Your task to perform on an android device: Search for flights from San Diego to Seattle Image 0: 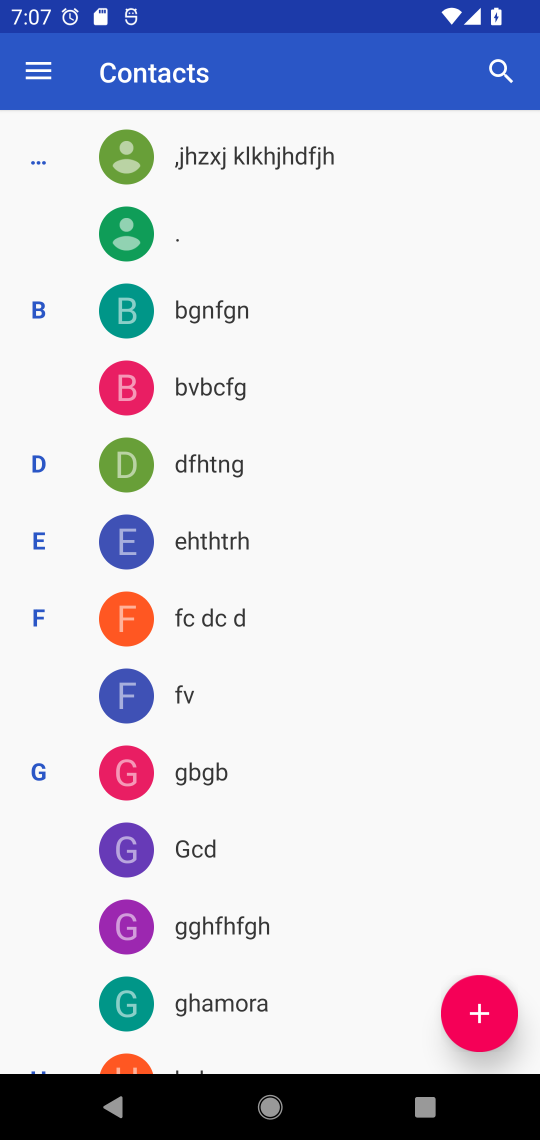
Step 0: press home button
Your task to perform on an android device: Search for flights from San Diego to Seattle Image 1: 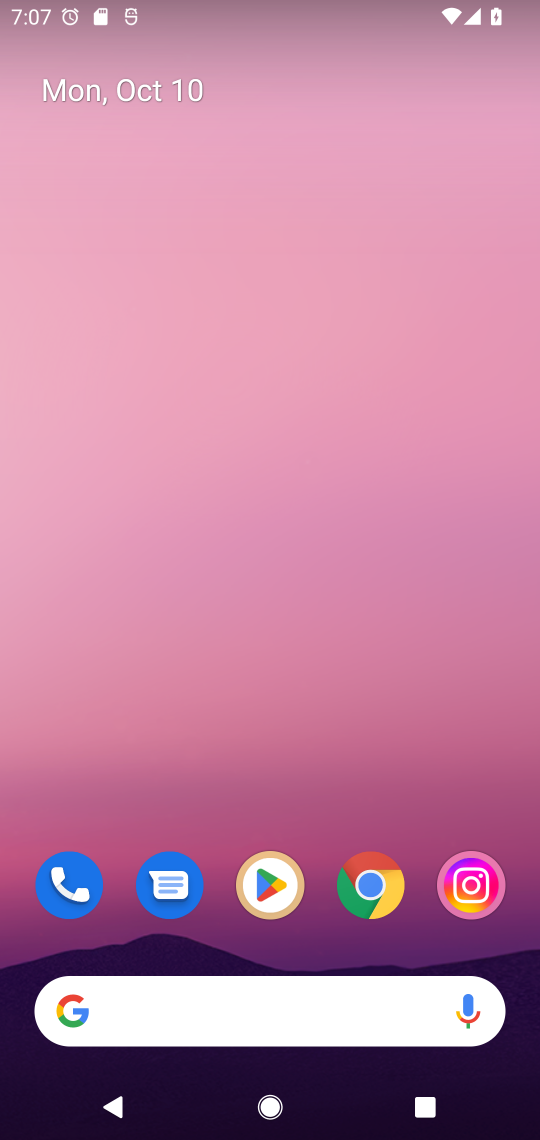
Step 1: click (365, 882)
Your task to perform on an android device: Search for flights from San Diego to Seattle Image 2: 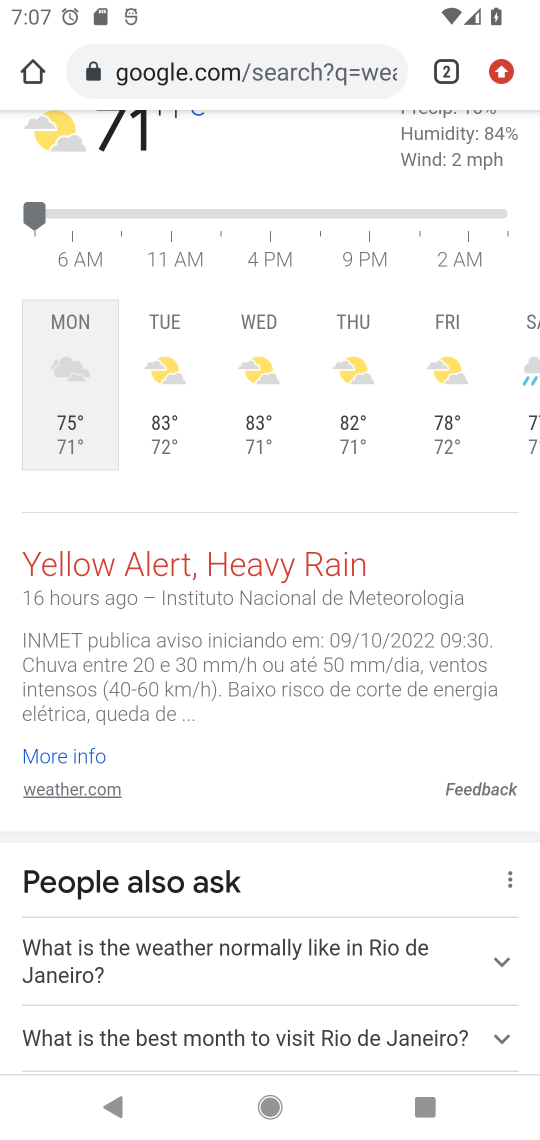
Step 2: click (212, 78)
Your task to perform on an android device: Search for flights from San Diego to Seattle Image 3: 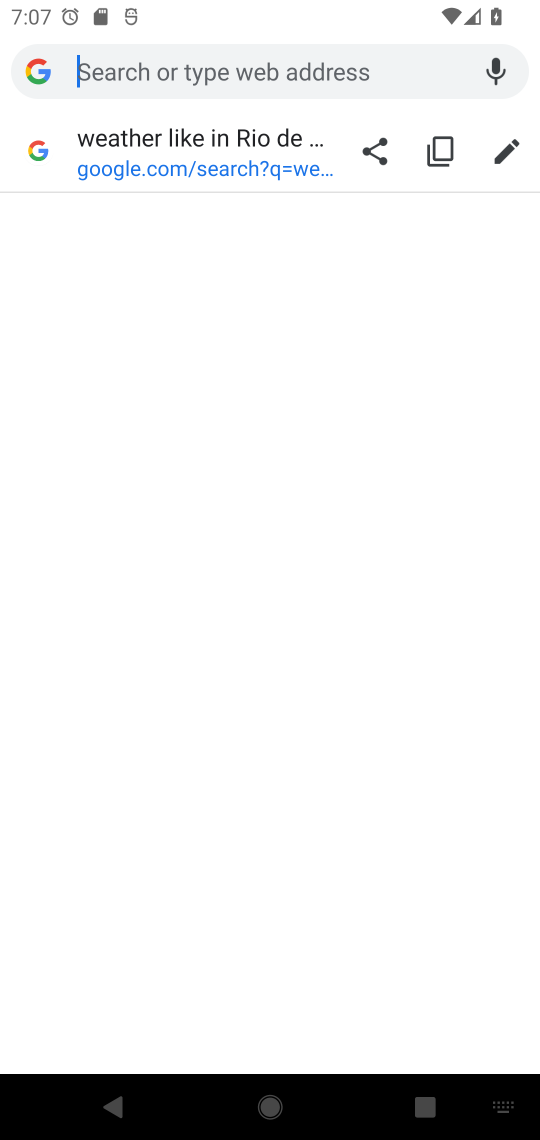
Step 3: type "flights from San Diego to Seattle"
Your task to perform on an android device: Search for flights from San Diego to Seattle Image 4: 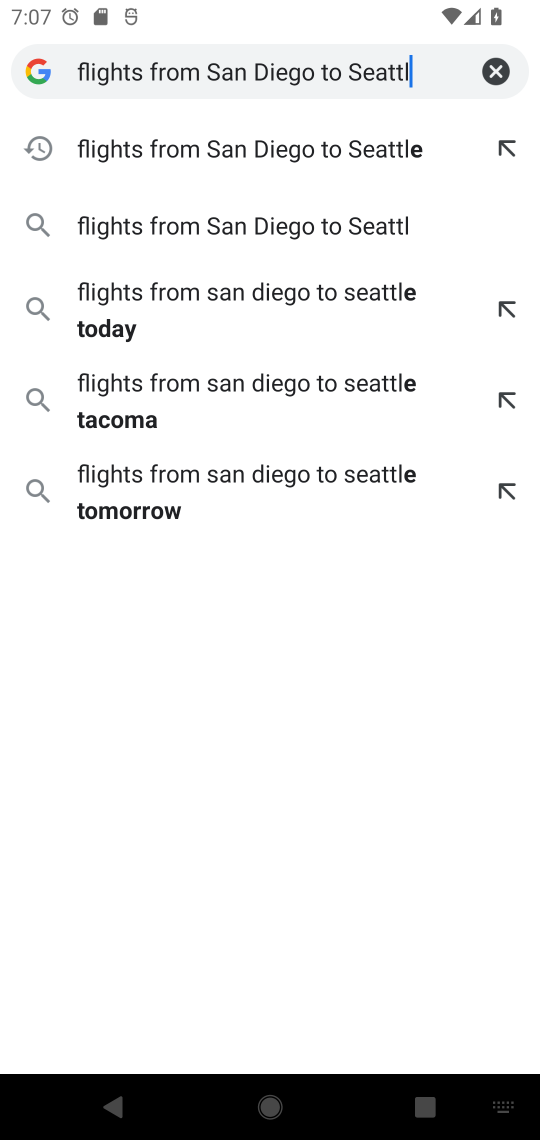
Step 4: type ""
Your task to perform on an android device: Search for flights from San Diego to Seattle Image 5: 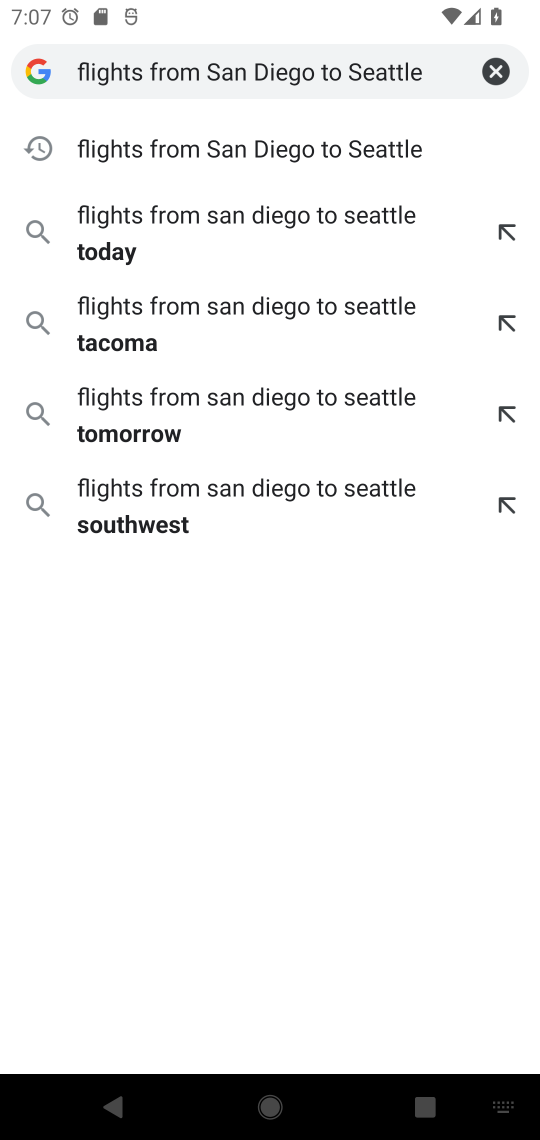
Step 5: click (304, 153)
Your task to perform on an android device: Search for flights from San Diego to Seattle Image 6: 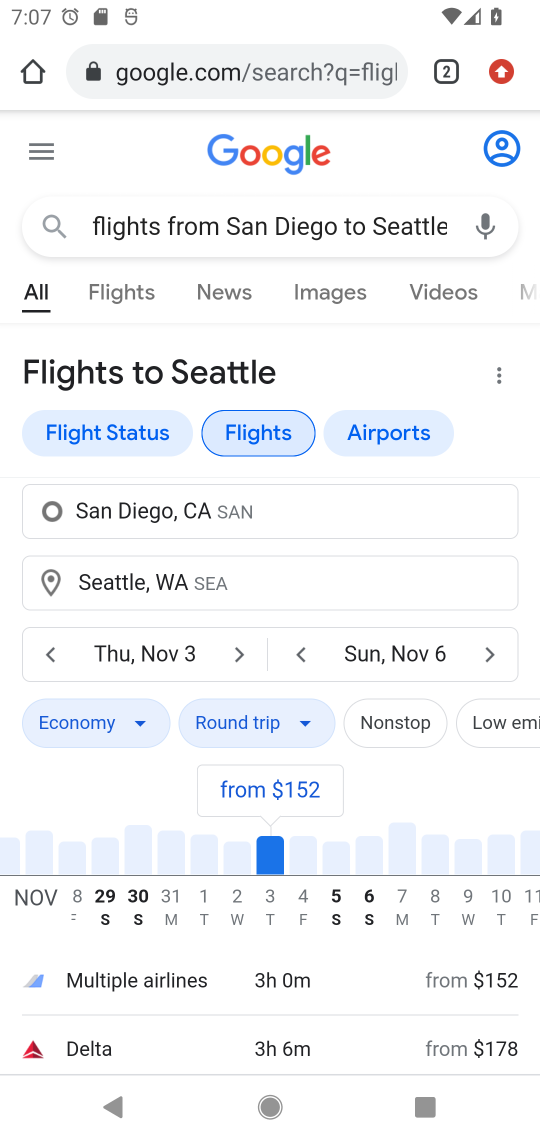
Step 6: click (296, 610)
Your task to perform on an android device: Search for flights from San Diego to Seattle Image 7: 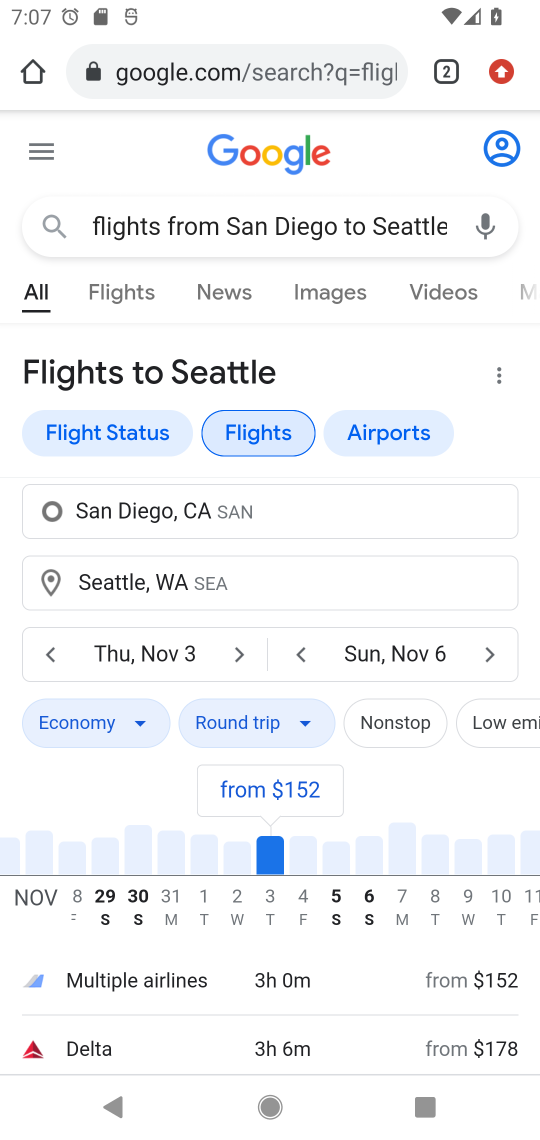
Step 7: drag from (281, 527) to (281, 265)
Your task to perform on an android device: Search for flights from San Diego to Seattle Image 8: 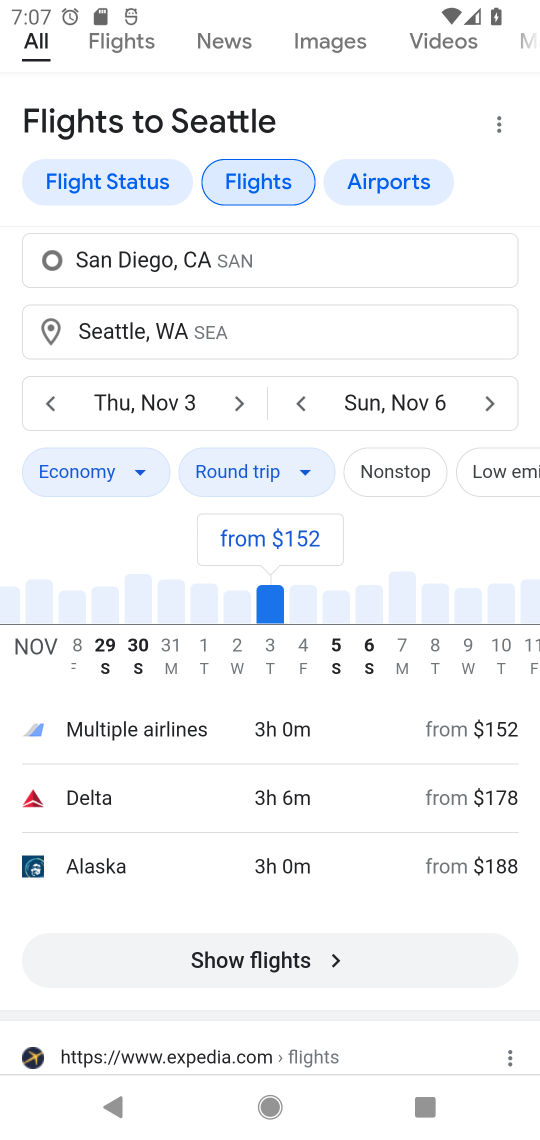
Step 8: click (294, 948)
Your task to perform on an android device: Search for flights from San Diego to Seattle Image 9: 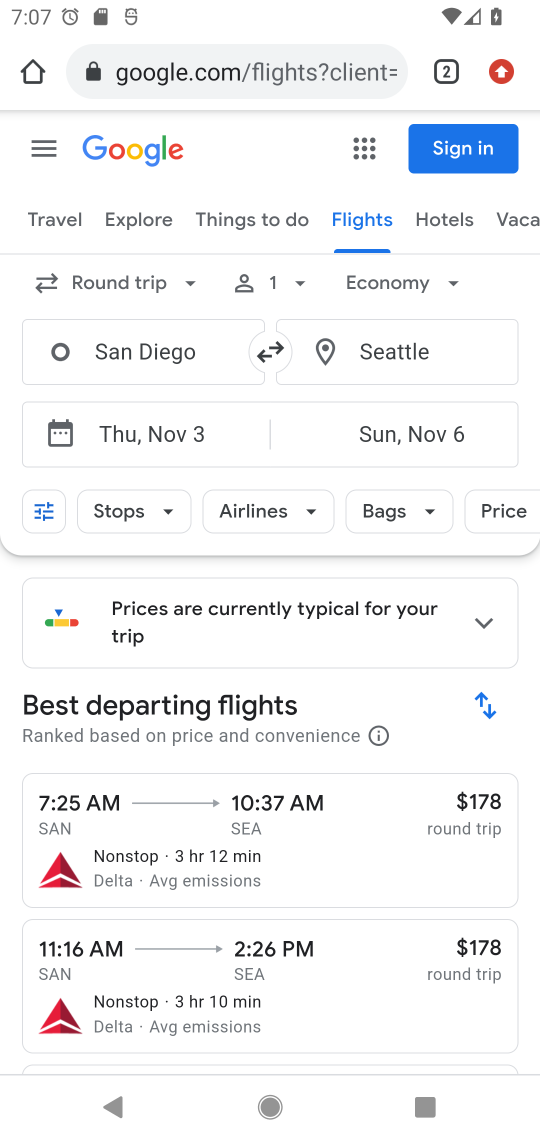
Step 9: task complete